Your task to perform on an android device: Open calendar and show me the first week of next month Image 0: 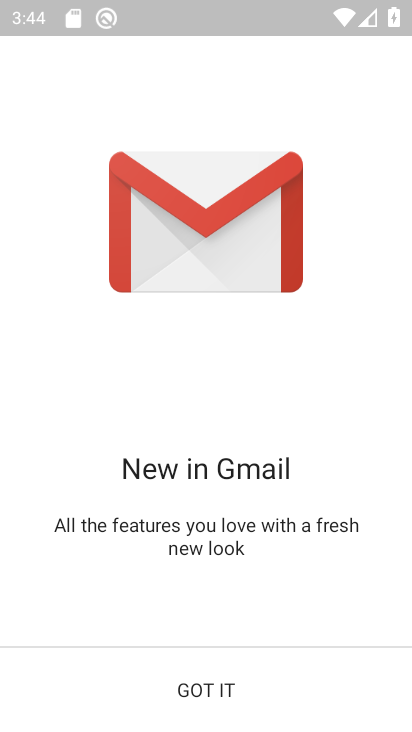
Step 0: click (362, 240)
Your task to perform on an android device: Open calendar and show me the first week of next month Image 1: 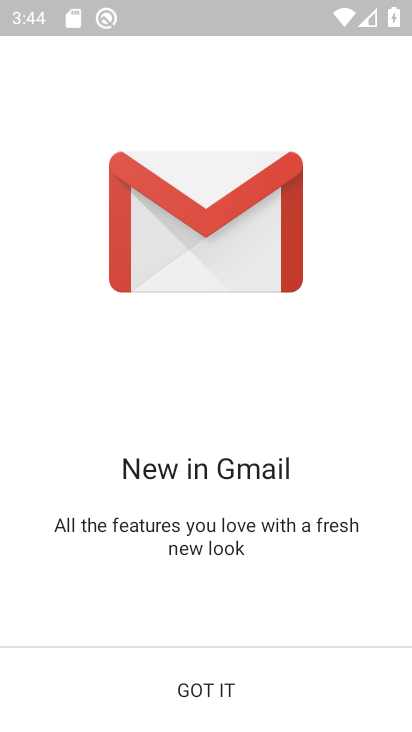
Step 1: click (391, 342)
Your task to perform on an android device: Open calendar and show me the first week of next month Image 2: 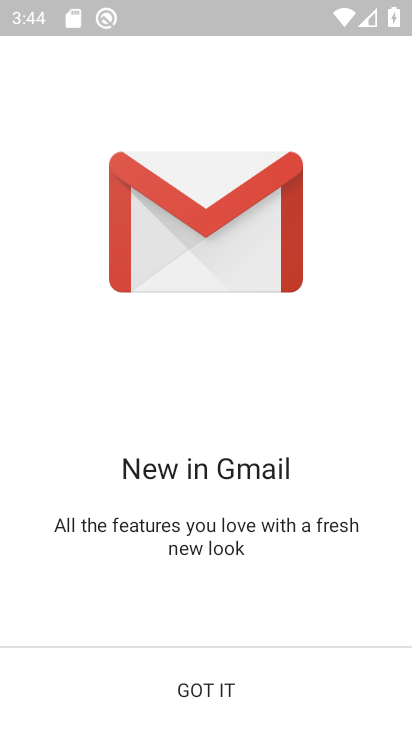
Step 2: click (210, 681)
Your task to perform on an android device: Open calendar and show me the first week of next month Image 3: 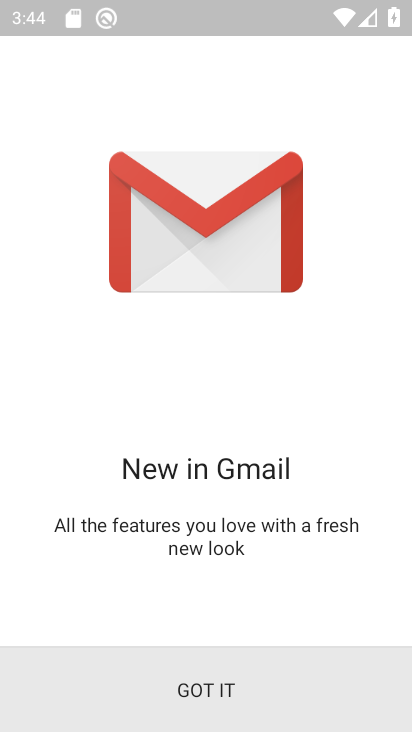
Step 3: click (212, 683)
Your task to perform on an android device: Open calendar and show me the first week of next month Image 4: 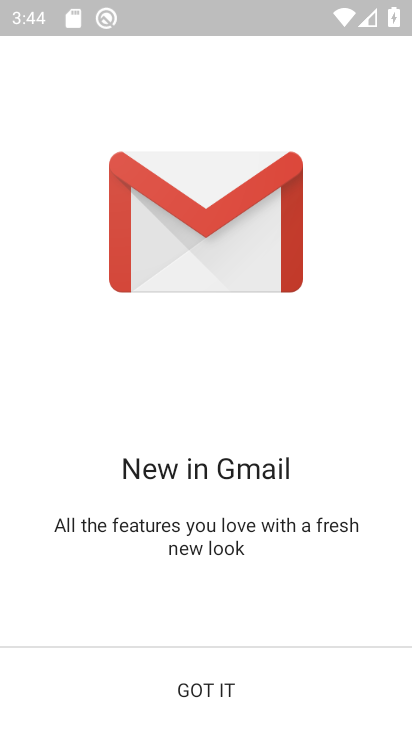
Step 4: click (212, 680)
Your task to perform on an android device: Open calendar and show me the first week of next month Image 5: 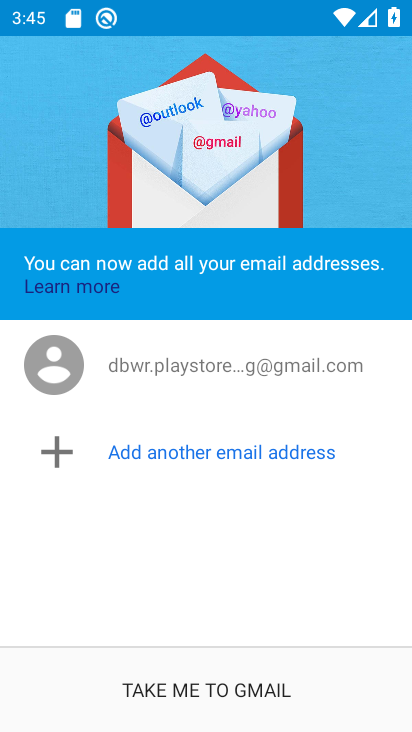
Step 5: click (224, 691)
Your task to perform on an android device: Open calendar and show me the first week of next month Image 6: 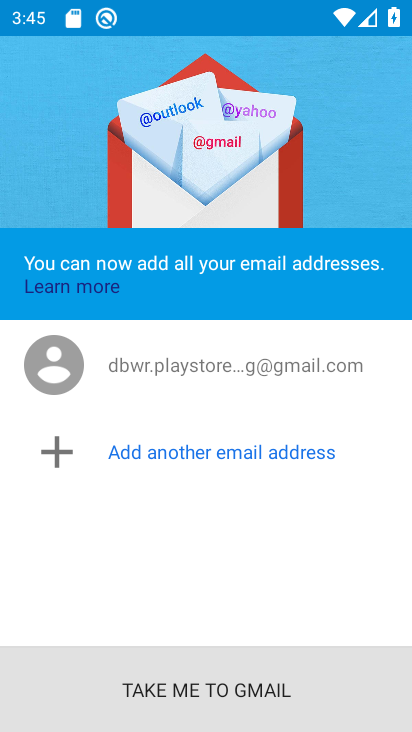
Step 6: click (223, 692)
Your task to perform on an android device: Open calendar and show me the first week of next month Image 7: 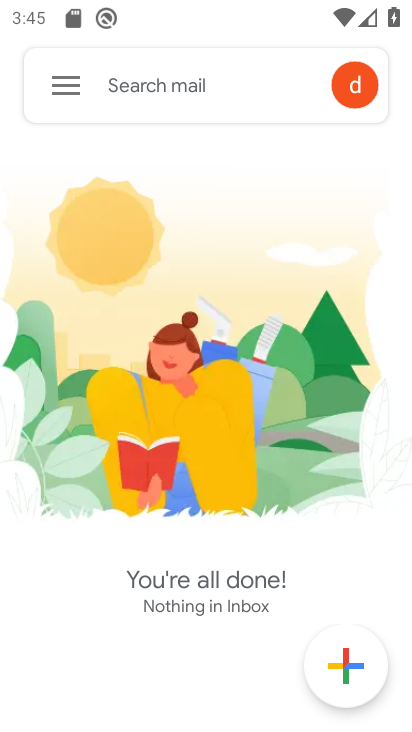
Step 7: press home button
Your task to perform on an android device: Open calendar and show me the first week of next month Image 8: 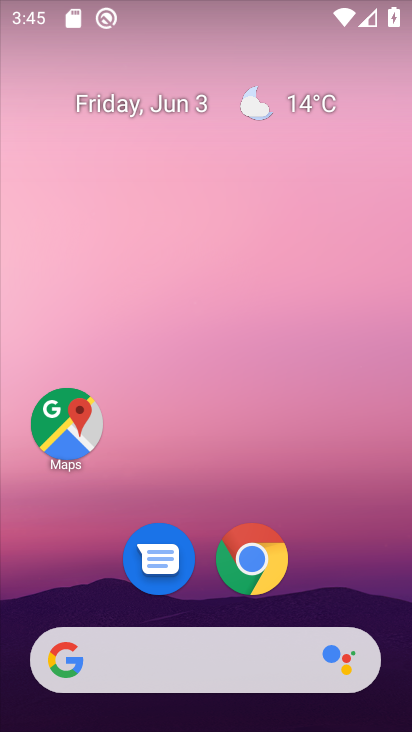
Step 8: drag from (246, 671) to (67, 24)
Your task to perform on an android device: Open calendar and show me the first week of next month Image 9: 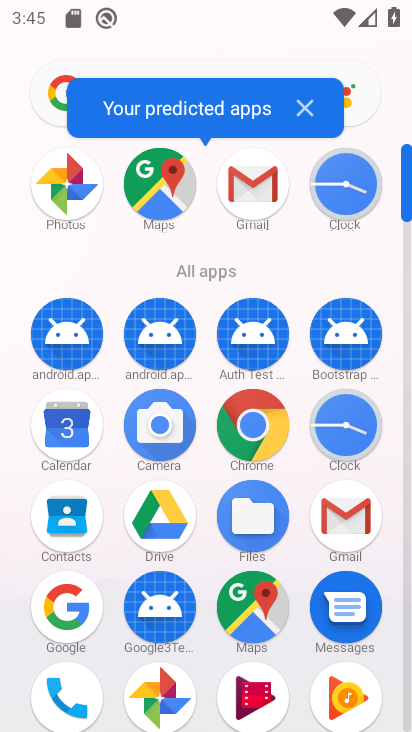
Step 9: click (80, 439)
Your task to perform on an android device: Open calendar and show me the first week of next month Image 10: 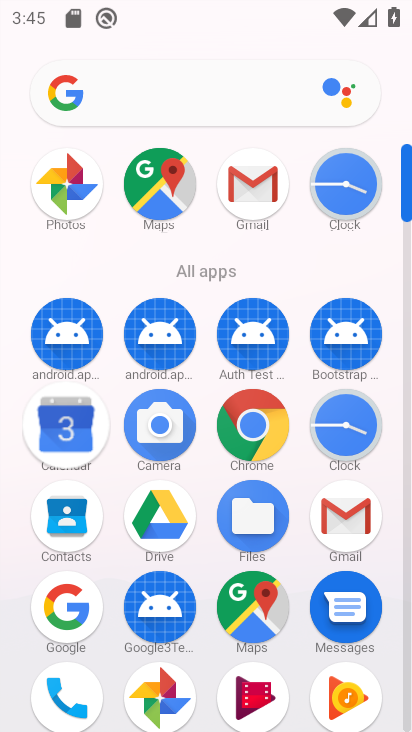
Step 10: click (78, 438)
Your task to perform on an android device: Open calendar and show me the first week of next month Image 11: 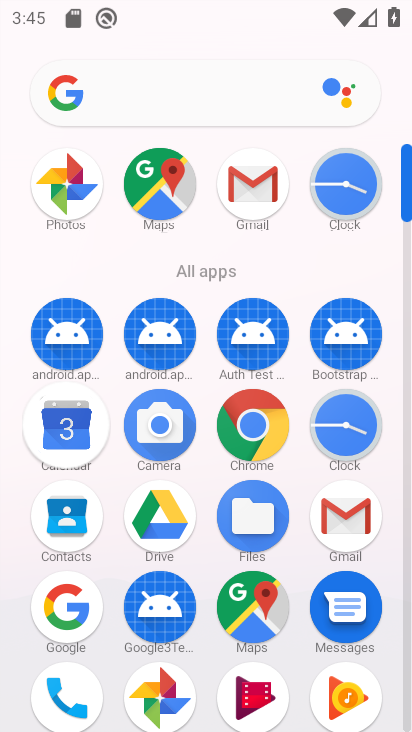
Step 11: click (78, 438)
Your task to perform on an android device: Open calendar and show me the first week of next month Image 12: 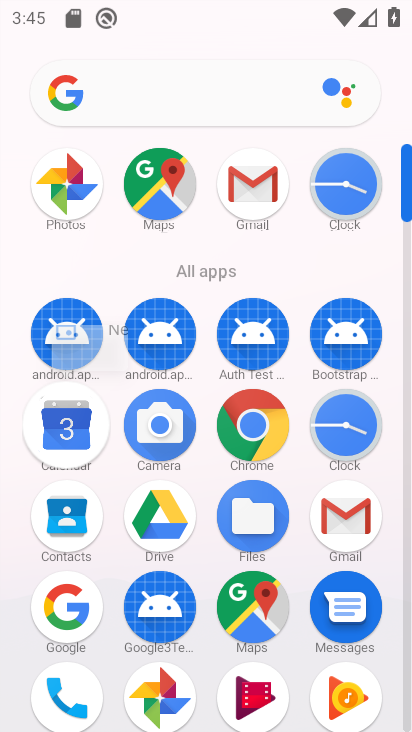
Step 12: click (78, 438)
Your task to perform on an android device: Open calendar and show me the first week of next month Image 13: 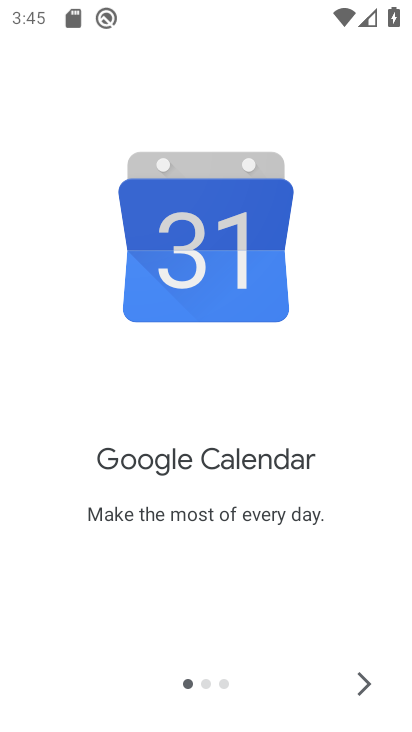
Step 13: click (374, 669)
Your task to perform on an android device: Open calendar and show me the first week of next month Image 14: 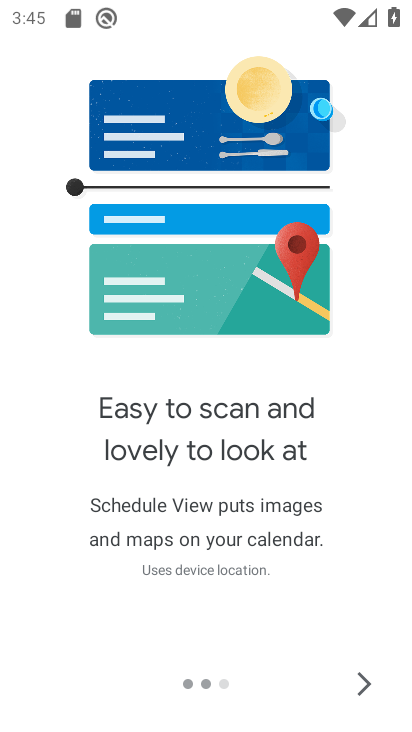
Step 14: click (365, 673)
Your task to perform on an android device: Open calendar and show me the first week of next month Image 15: 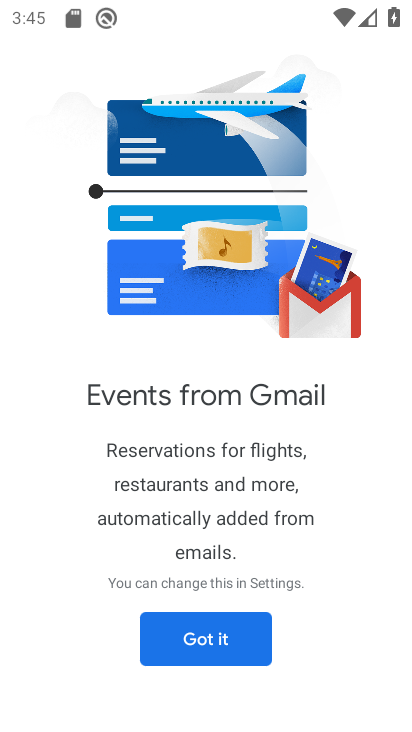
Step 15: click (187, 627)
Your task to perform on an android device: Open calendar and show me the first week of next month Image 16: 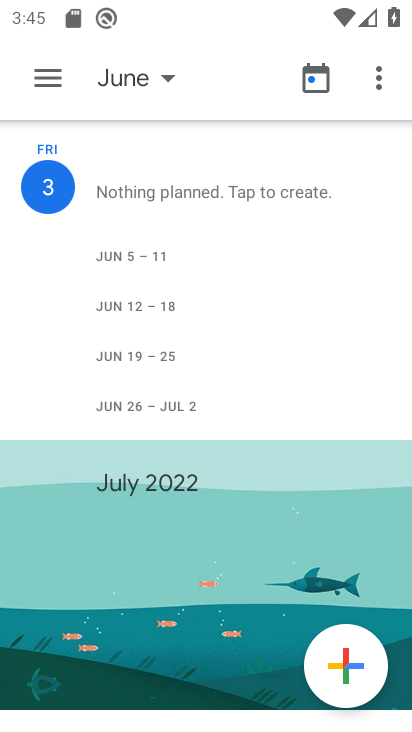
Step 16: click (160, 65)
Your task to perform on an android device: Open calendar and show me the first week of next month Image 17: 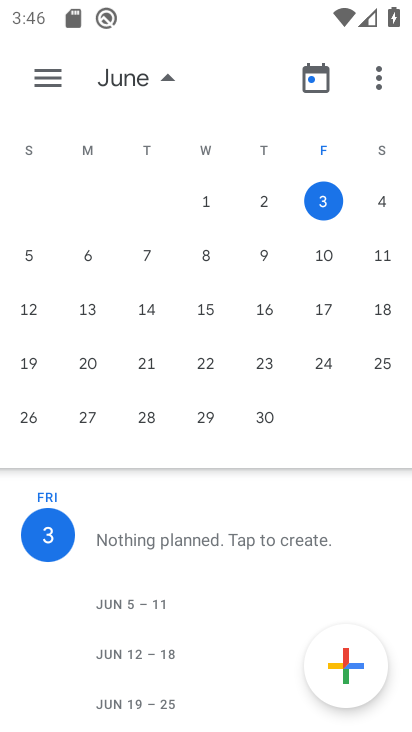
Step 17: drag from (329, 273) to (5, 297)
Your task to perform on an android device: Open calendar and show me the first week of next month Image 18: 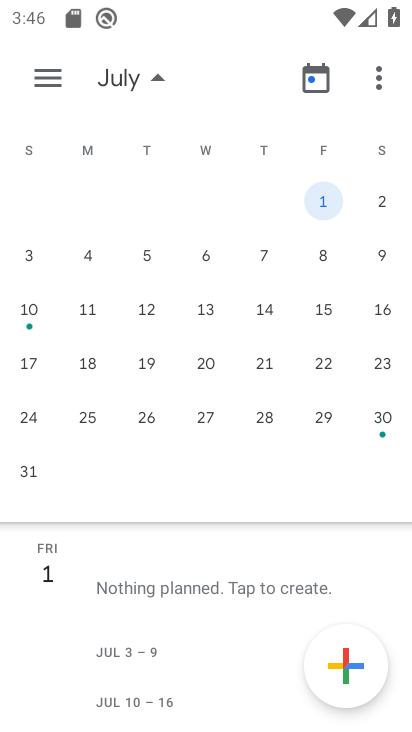
Step 18: click (1, 300)
Your task to perform on an android device: Open calendar and show me the first week of next month Image 19: 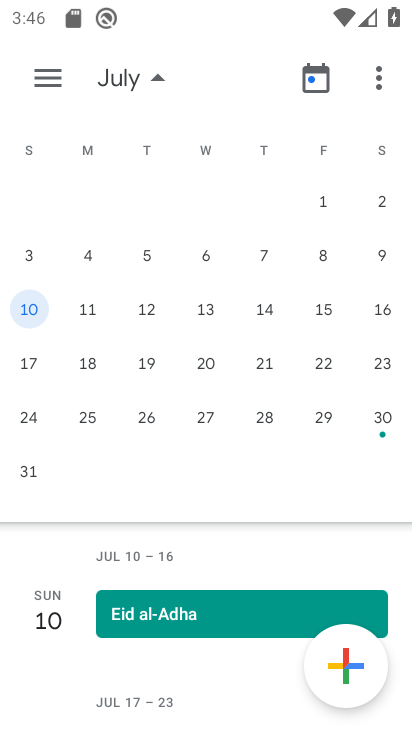
Step 19: click (318, 253)
Your task to perform on an android device: Open calendar and show me the first week of next month Image 20: 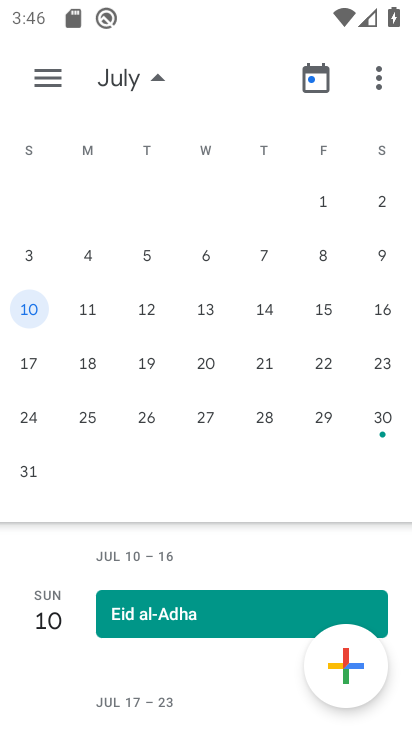
Step 20: click (312, 194)
Your task to perform on an android device: Open calendar and show me the first week of next month Image 21: 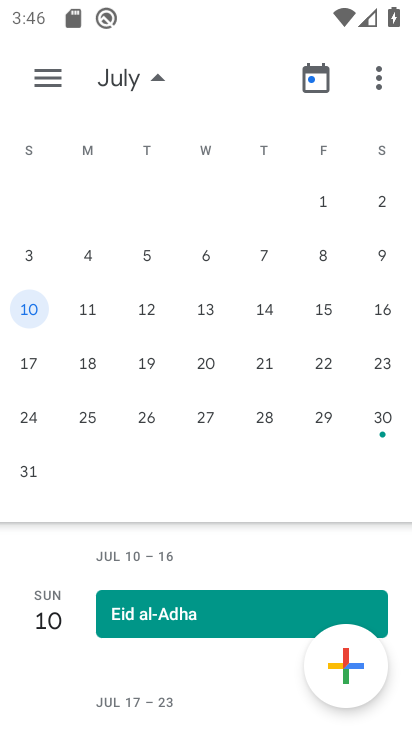
Step 21: click (325, 212)
Your task to perform on an android device: Open calendar and show me the first week of next month Image 22: 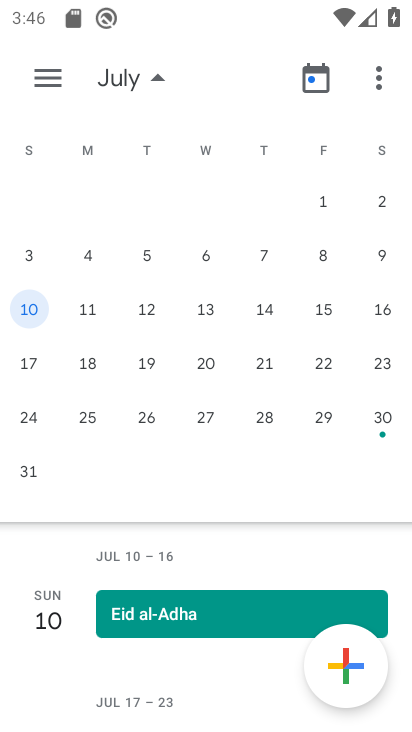
Step 22: click (325, 212)
Your task to perform on an android device: Open calendar and show me the first week of next month Image 23: 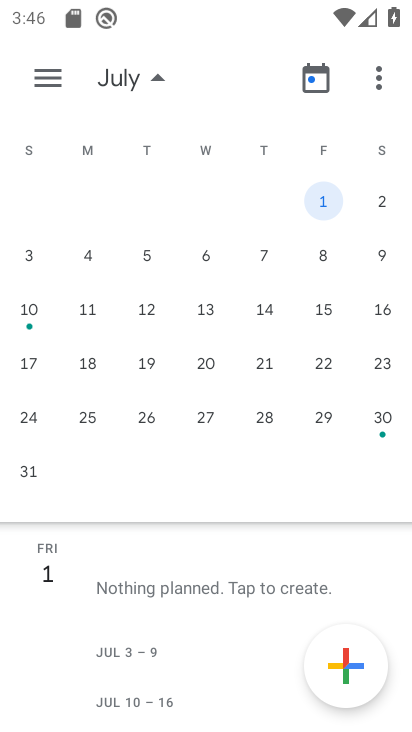
Step 23: click (327, 210)
Your task to perform on an android device: Open calendar and show me the first week of next month Image 24: 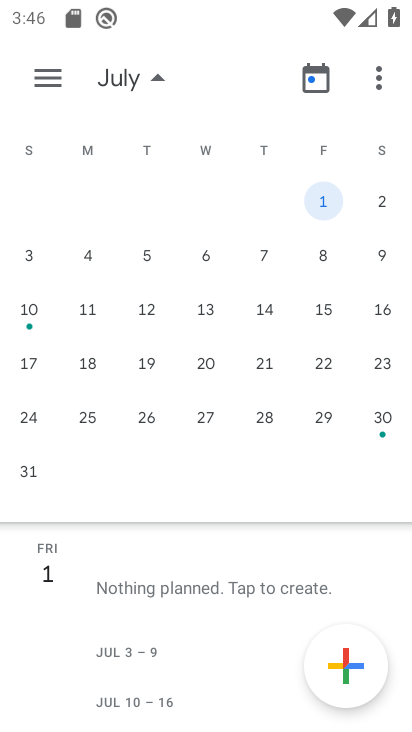
Step 24: click (327, 210)
Your task to perform on an android device: Open calendar and show me the first week of next month Image 25: 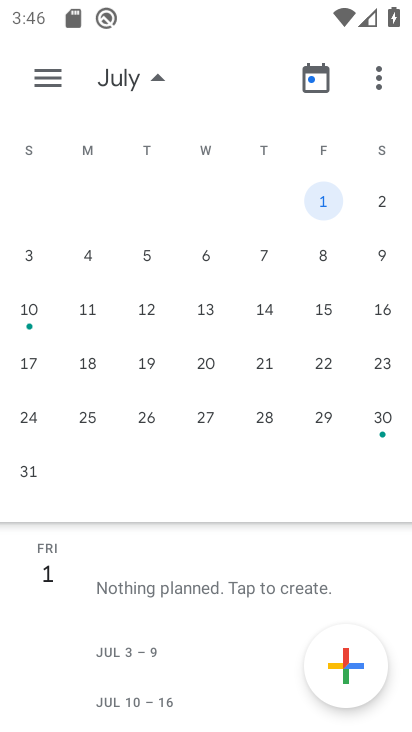
Step 25: task complete